Your task to perform on an android device: turn on data saver in the chrome app Image 0: 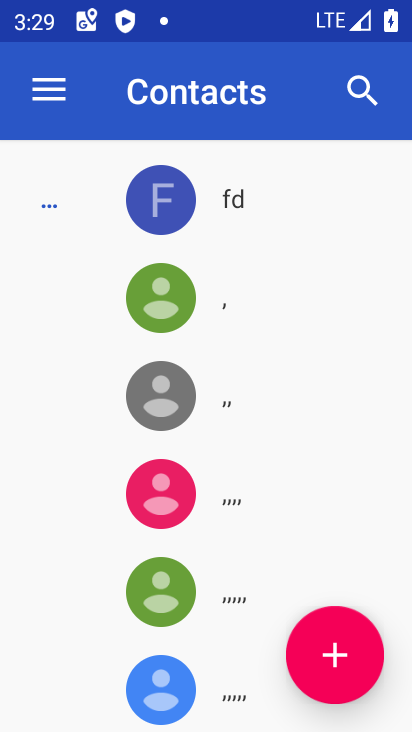
Step 0: press back button
Your task to perform on an android device: turn on data saver in the chrome app Image 1: 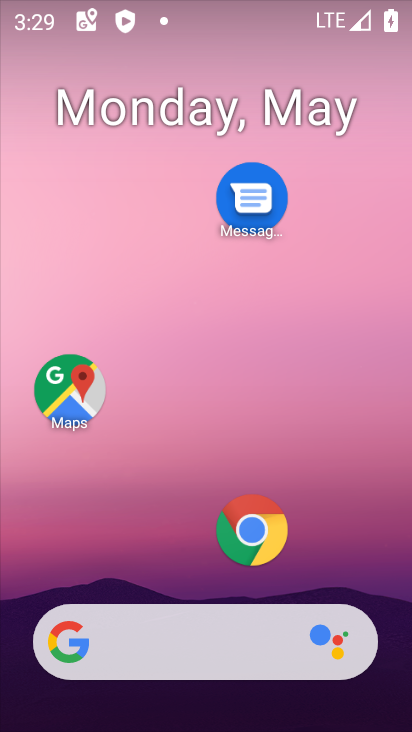
Step 1: click (262, 526)
Your task to perform on an android device: turn on data saver in the chrome app Image 2: 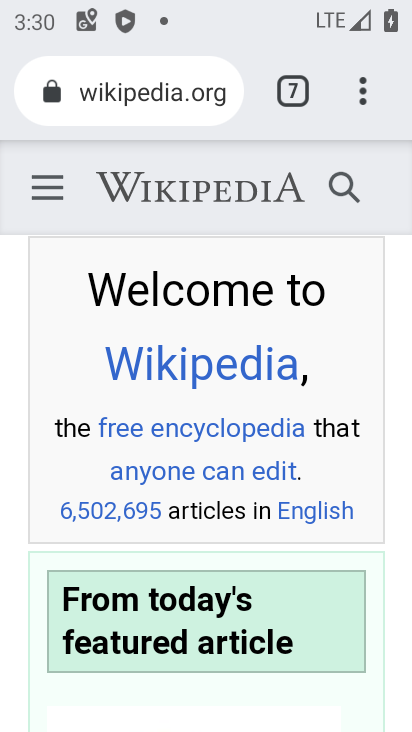
Step 2: drag from (357, 89) to (146, 555)
Your task to perform on an android device: turn on data saver in the chrome app Image 3: 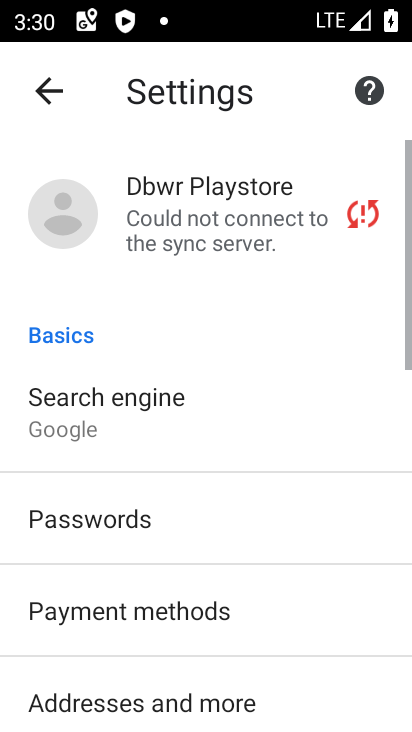
Step 3: drag from (152, 644) to (301, 51)
Your task to perform on an android device: turn on data saver in the chrome app Image 4: 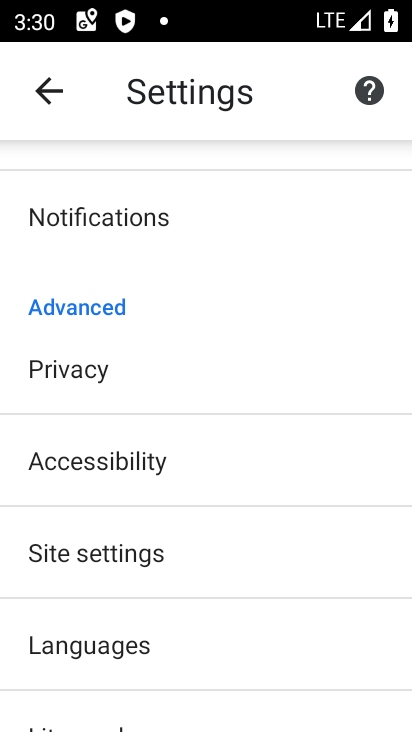
Step 4: click (117, 559)
Your task to perform on an android device: turn on data saver in the chrome app Image 5: 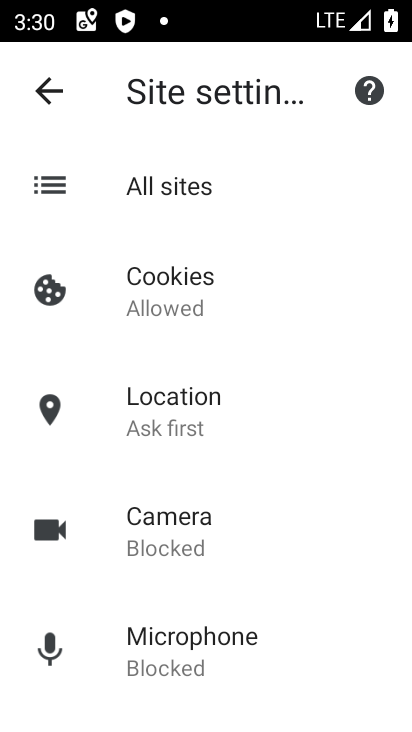
Step 5: drag from (181, 650) to (294, 54)
Your task to perform on an android device: turn on data saver in the chrome app Image 6: 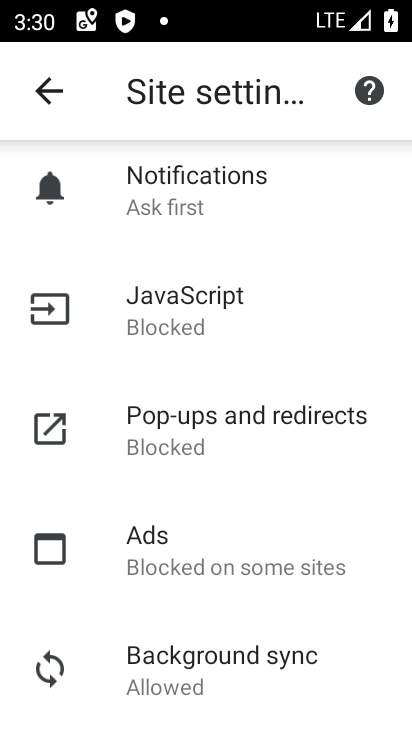
Step 6: click (46, 70)
Your task to perform on an android device: turn on data saver in the chrome app Image 7: 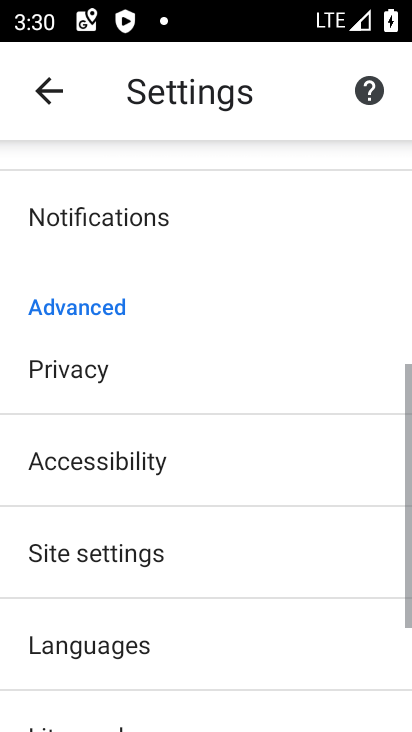
Step 7: drag from (161, 583) to (231, 183)
Your task to perform on an android device: turn on data saver in the chrome app Image 8: 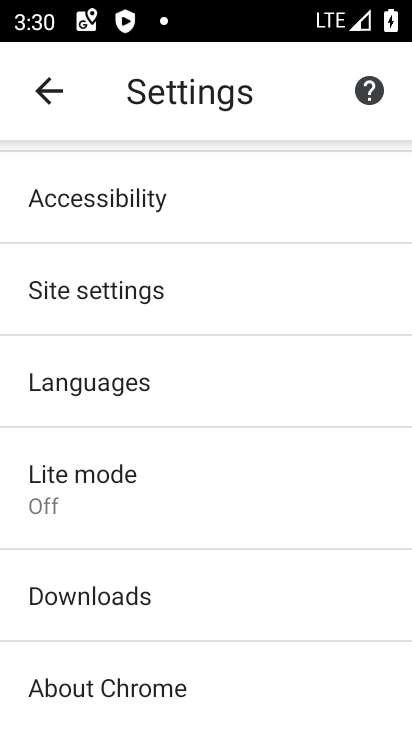
Step 8: click (111, 464)
Your task to perform on an android device: turn on data saver in the chrome app Image 9: 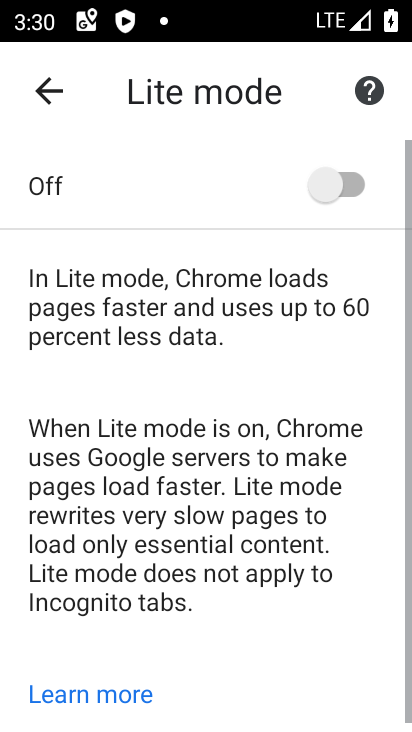
Step 9: click (331, 195)
Your task to perform on an android device: turn on data saver in the chrome app Image 10: 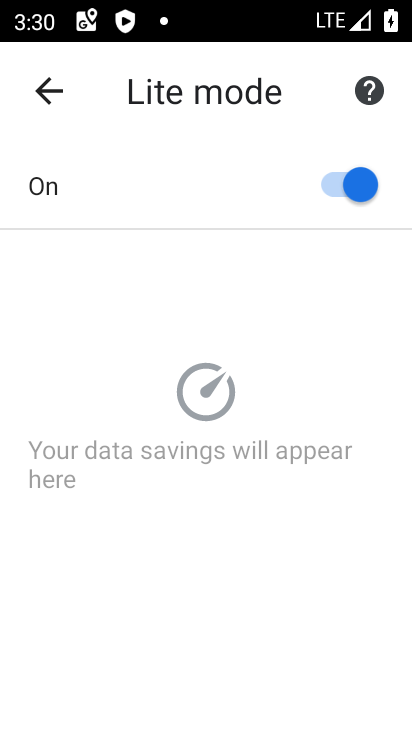
Step 10: task complete